Your task to perform on an android device: install app "Roku - Official Remote Control" Image 0: 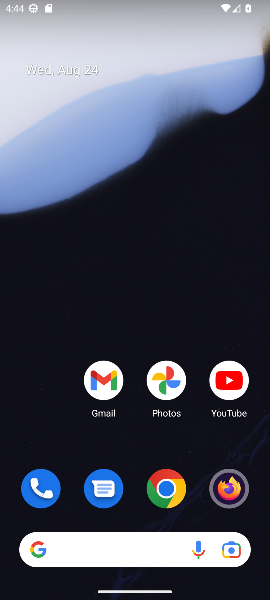
Step 0: drag from (133, 512) to (165, 81)
Your task to perform on an android device: install app "Roku - Official Remote Control" Image 1: 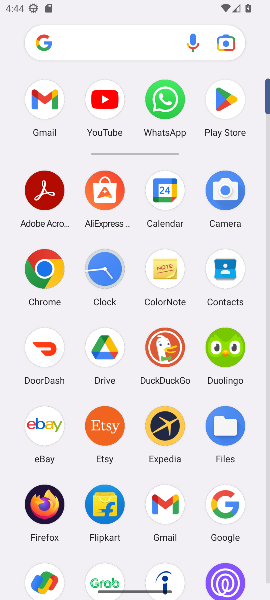
Step 1: click (218, 97)
Your task to perform on an android device: install app "Roku - Official Remote Control" Image 2: 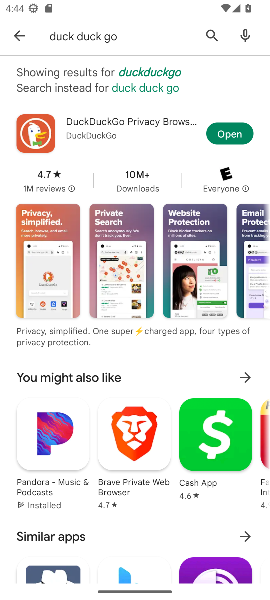
Step 2: click (206, 38)
Your task to perform on an android device: install app "Roku - Official Remote Control" Image 3: 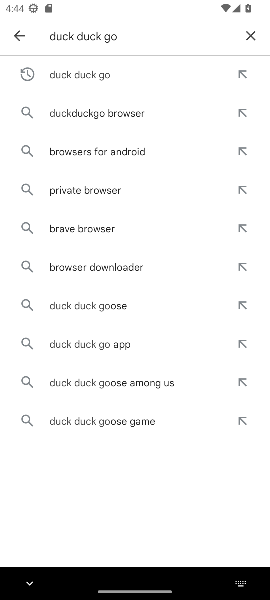
Step 3: click (254, 39)
Your task to perform on an android device: install app "Roku - Official Remote Control" Image 4: 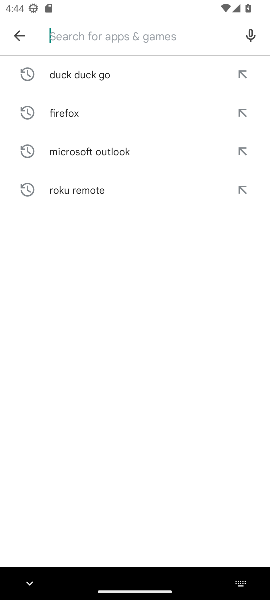
Step 4: type "roku "
Your task to perform on an android device: install app "Roku - Official Remote Control" Image 5: 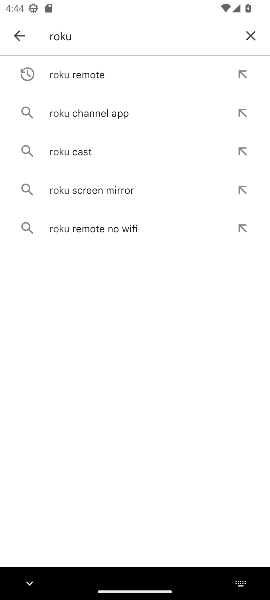
Step 5: click (166, 80)
Your task to perform on an android device: install app "Roku - Official Remote Control" Image 6: 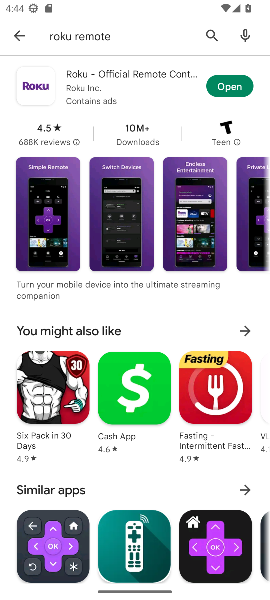
Step 6: click (210, 80)
Your task to perform on an android device: install app "Roku - Official Remote Control" Image 7: 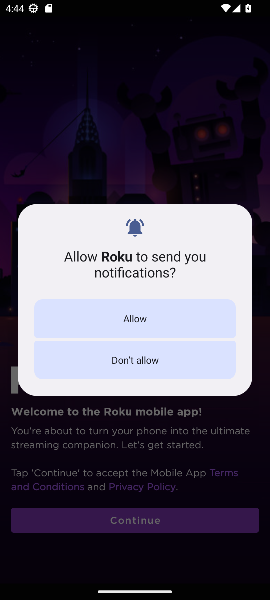
Step 7: click (171, 321)
Your task to perform on an android device: install app "Roku - Official Remote Control" Image 8: 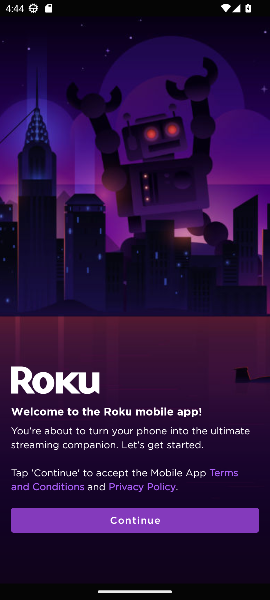
Step 8: task complete